Your task to perform on an android device: install app "Duolingo: language lessons" Image 0: 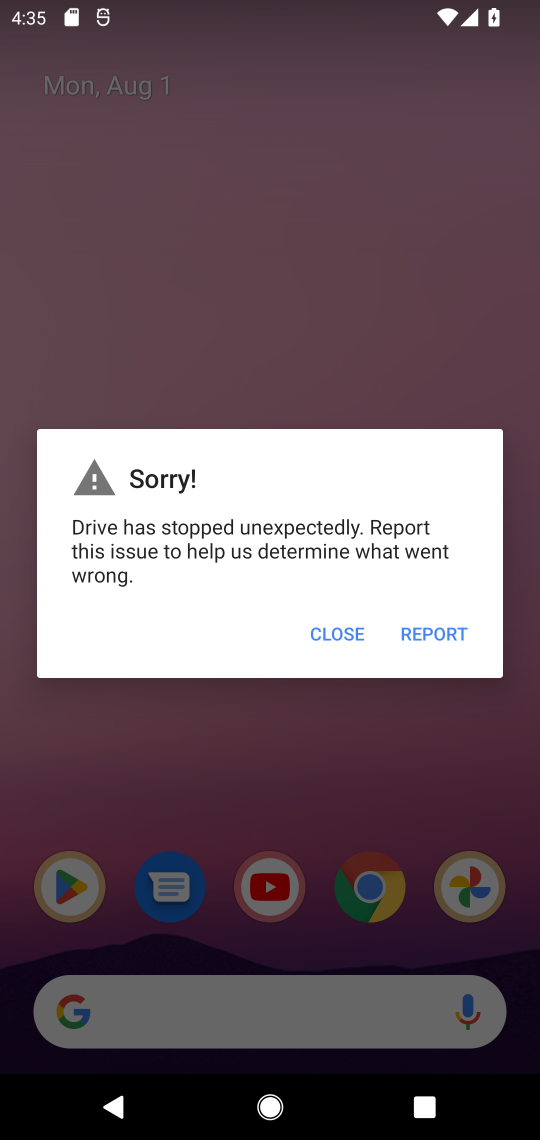
Step 0: click (331, 647)
Your task to perform on an android device: install app "Duolingo: language lessons" Image 1: 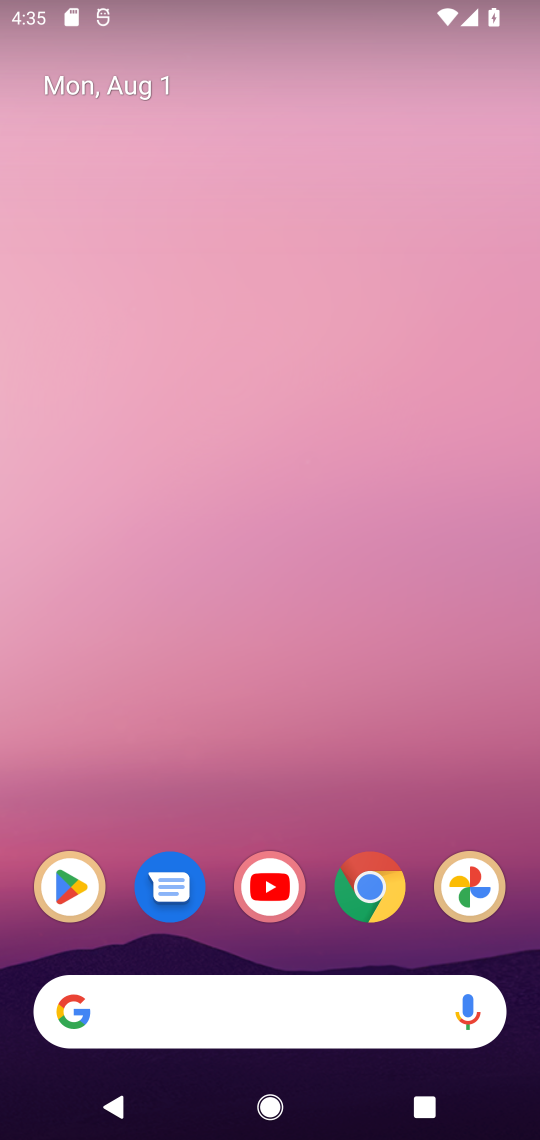
Step 1: click (77, 872)
Your task to perform on an android device: install app "Duolingo: language lessons" Image 2: 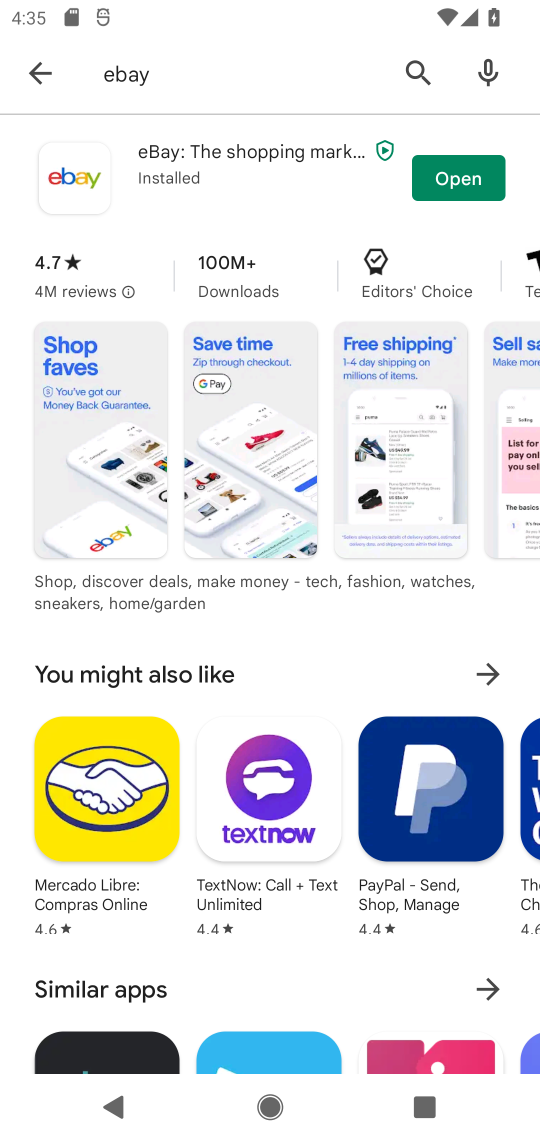
Step 2: click (30, 93)
Your task to perform on an android device: install app "Duolingo: language lessons" Image 3: 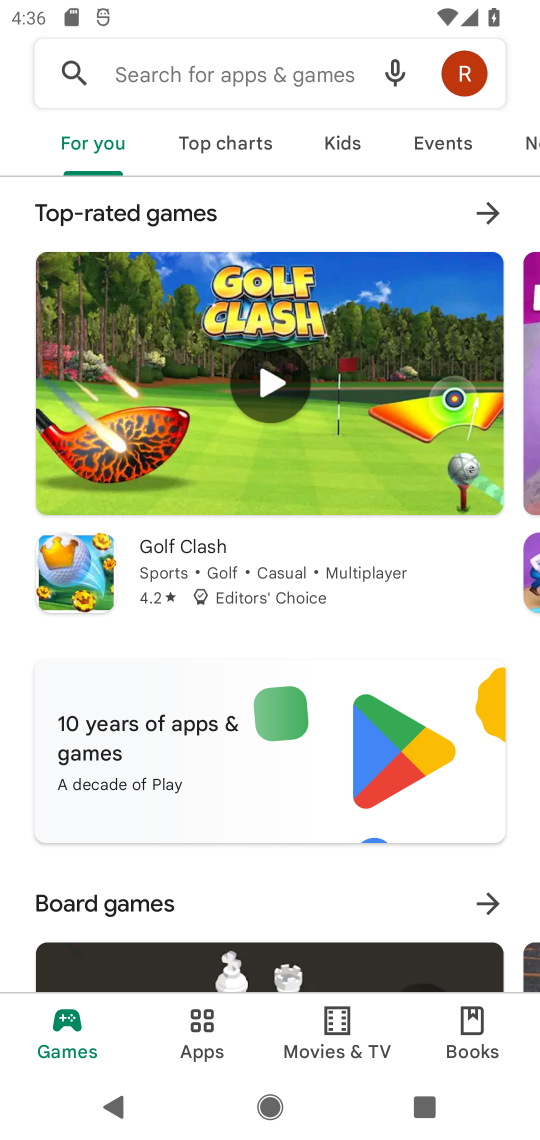
Step 3: click (175, 98)
Your task to perform on an android device: install app "Duolingo: language lessons" Image 4: 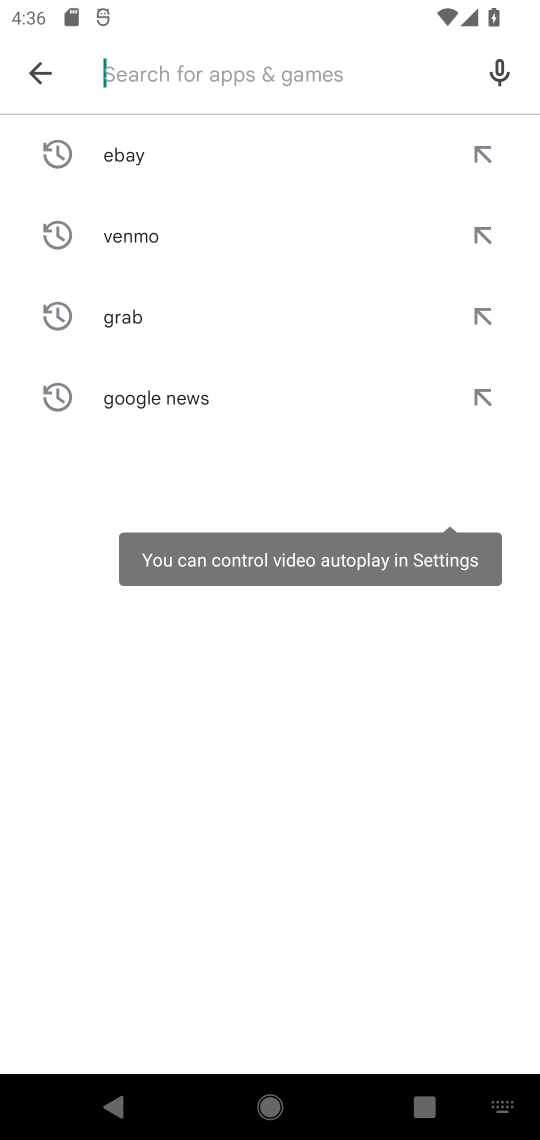
Step 4: type "Duolingo"
Your task to perform on an android device: install app "Duolingo: language lessons" Image 5: 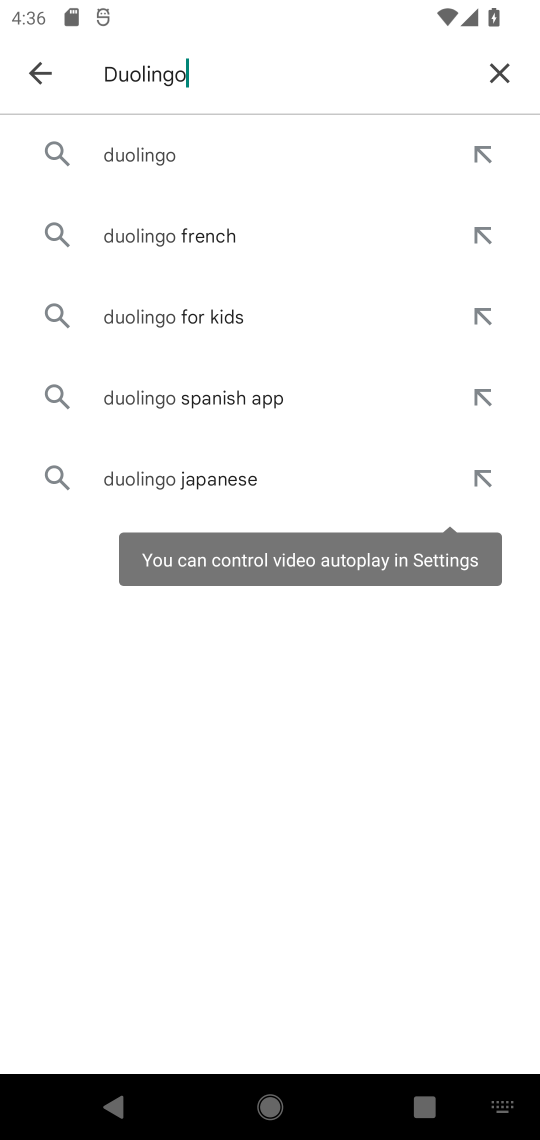
Step 5: click (170, 150)
Your task to perform on an android device: install app "Duolingo: language lessons" Image 6: 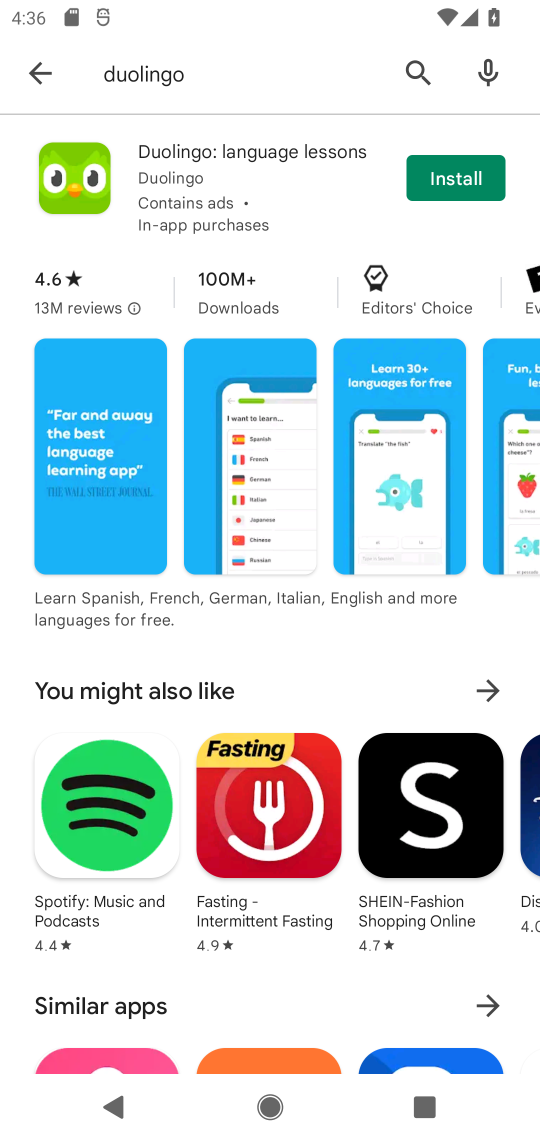
Step 6: click (455, 192)
Your task to perform on an android device: install app "Duolingo: language lessons" Image 7: 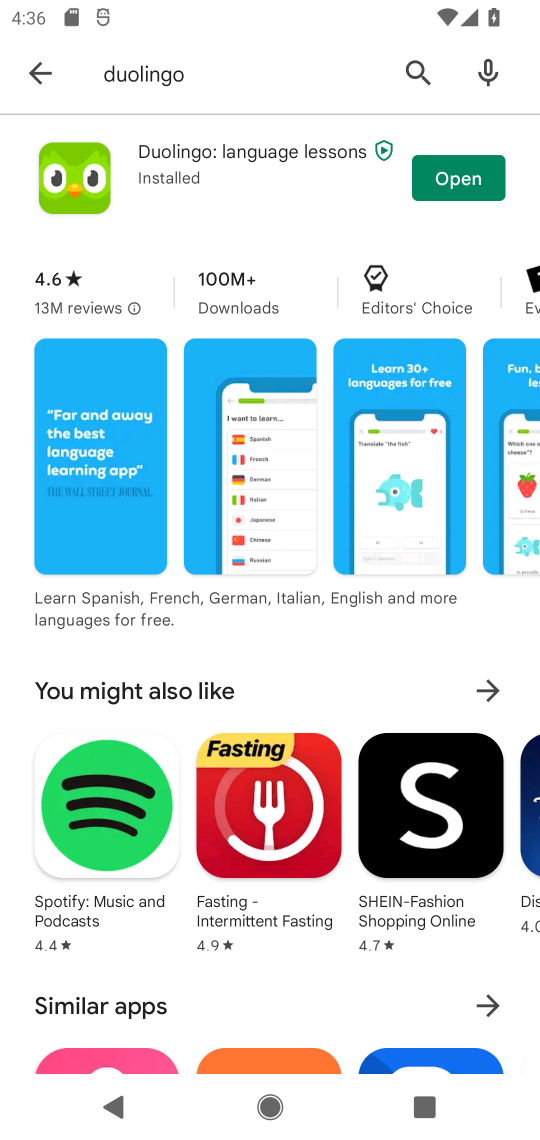
Step 7: click (455, 192)
Your task to perform on an android device: install app "Duolingo: language lessons" Image 8: 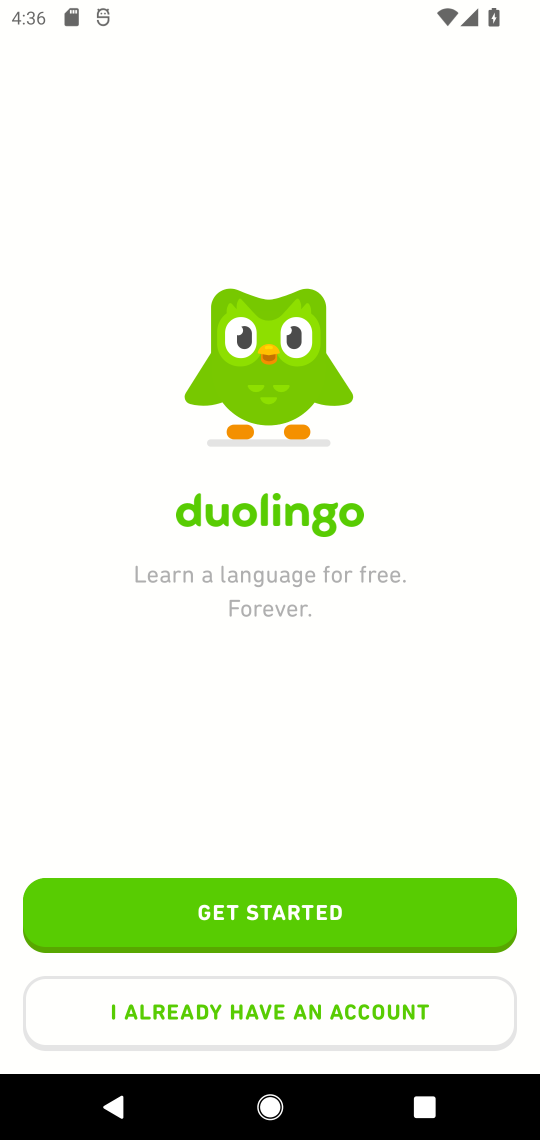
Step 8: task complete